Your task to perform on an android device: open app "Google Chrome" (install if not already installed) Image 0: 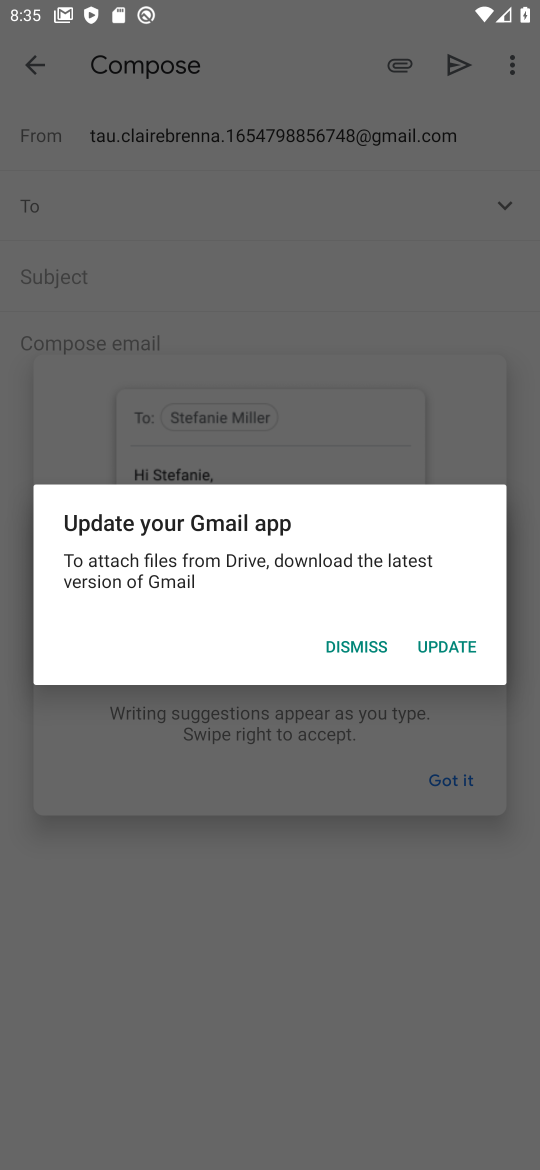
Step 0: press home button
Your task to perform on an android device: open app "Google Chrome" (install if not already installed) Image 1: 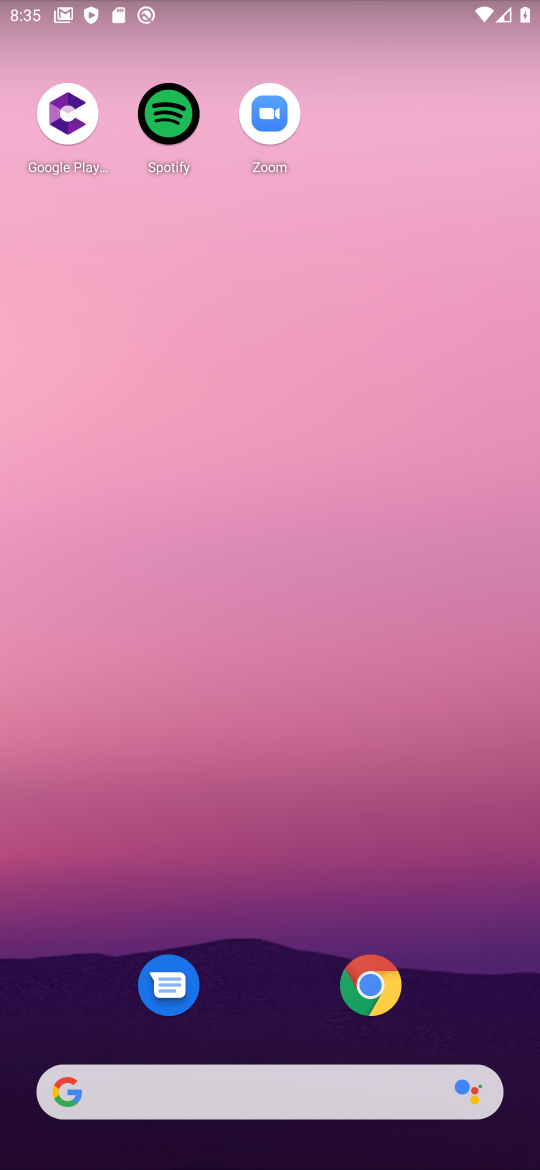
Step 1: click (361, 972)
Your task to perform on an android device: open app "Google Chrome" (install if not already installed) Image 2: 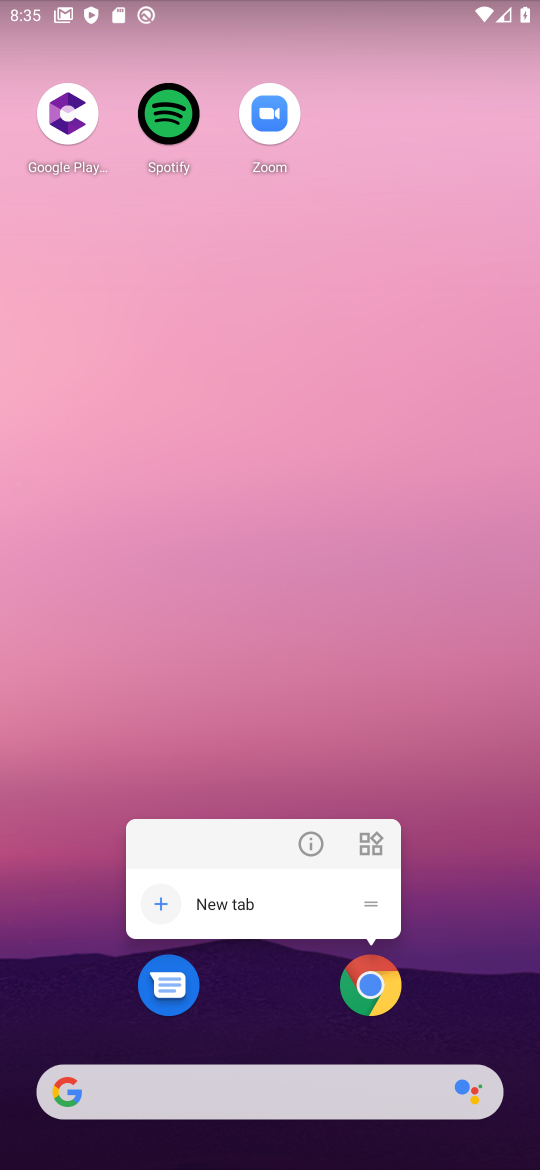
Step 2: click (361, 972)
Your task to perform on an android device: open app "Google Chrome" (install if not already installed) Image 3: 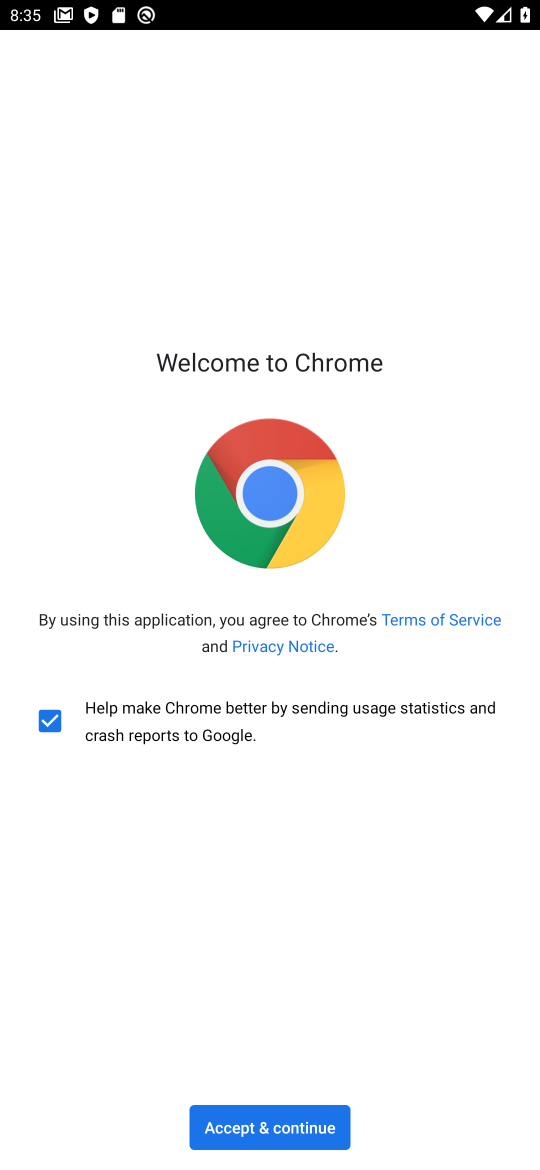
Step 3: click (266, 1135)
Your task to perform on an android device: open app "Google Chrome" (install if not already installed) Image 4: 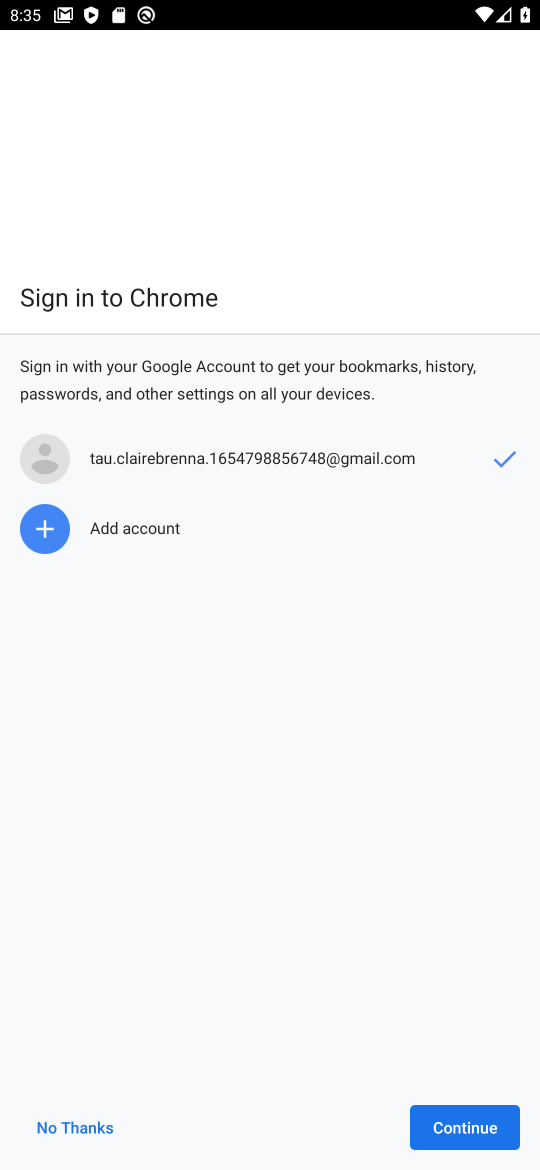
Step 4: click (433, 1119)
Your task to perform on an android device: open app "Google Chrome" (install if not already installed) Image 5: 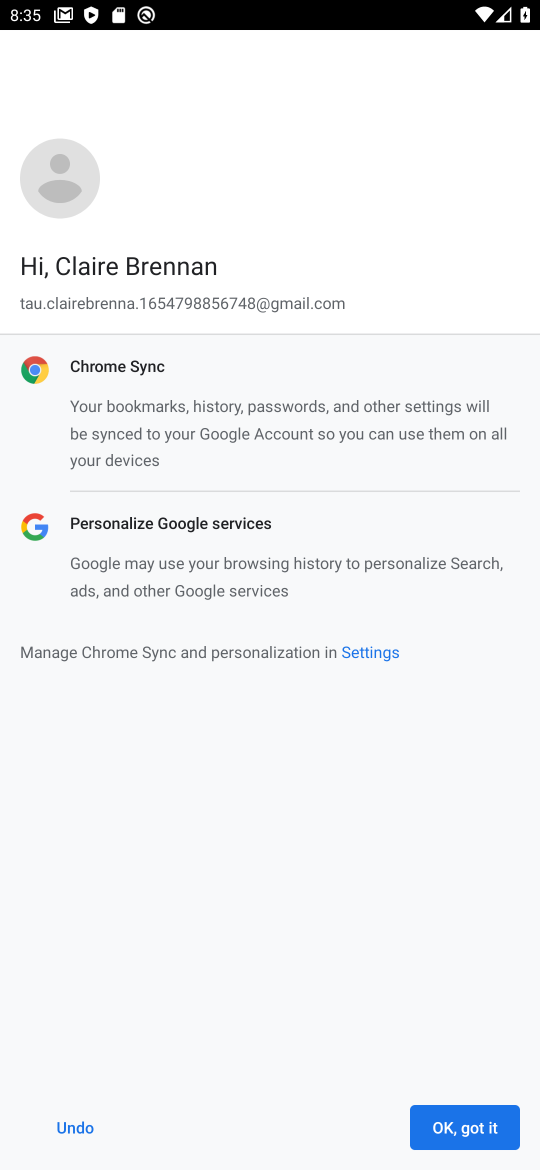
Step 5: click (477, 1126)
Your task to perform on an android device: open app "Google Chrome" (install if not already installed) Image 6: 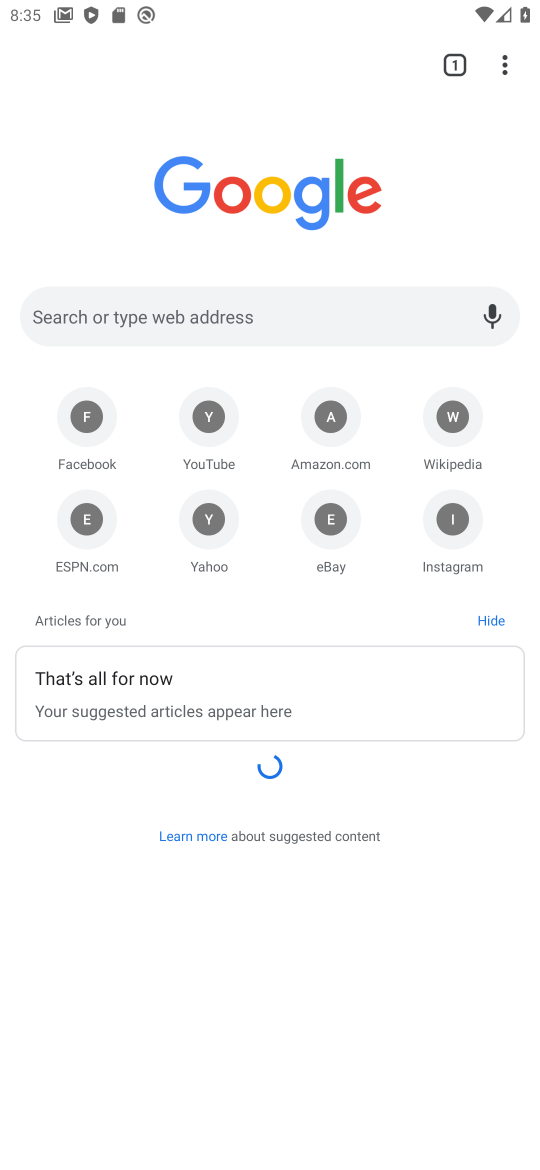
Step 6: task complete